Your task to perform on an android device: see creations saved in the google photos Image 0: 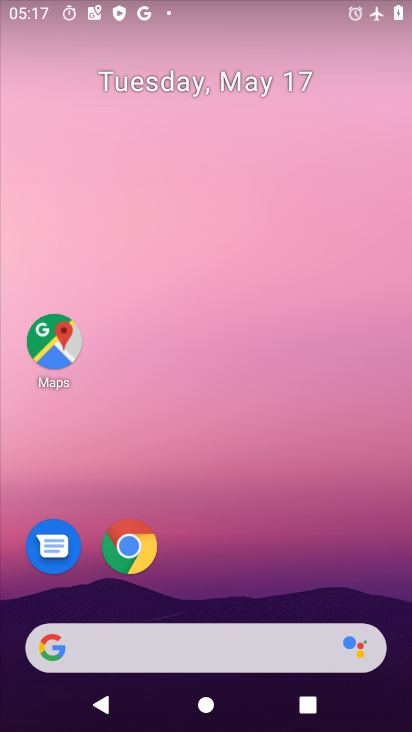
Step 0: drag from (399, 434) to (389, 191)
Your task to perform on an android device: see creations saved in the google photos Image 1: 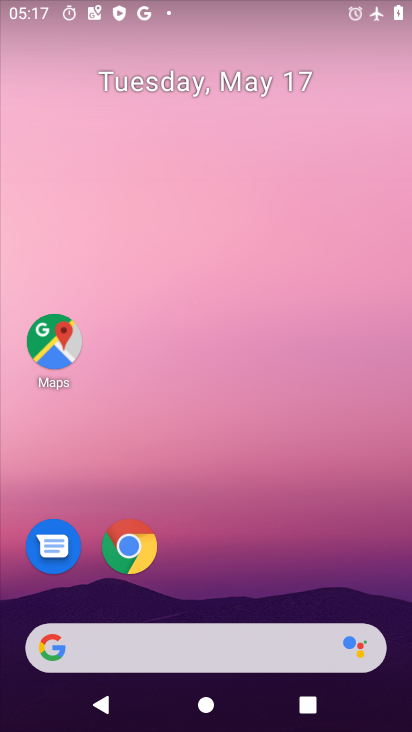
Step 1: drag from (373, 408) to (353, 248)
Your task to perform on an android device: see creations saved in the google photos Image 2: 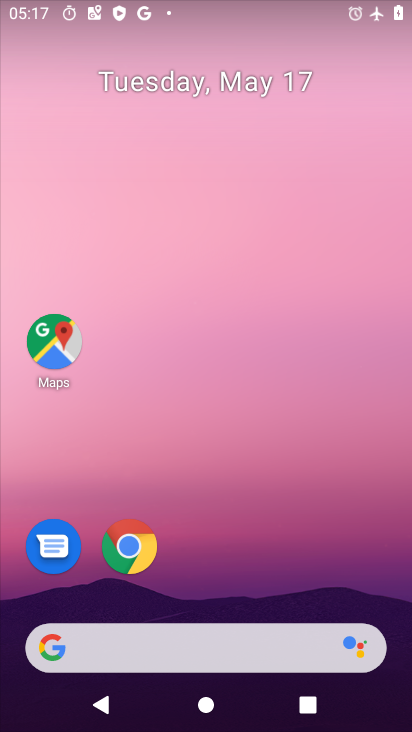
Step 2: drag from (374, 452) to (351, 178)
Your task to perform on an android device: see creations saved in the google photos Image 3: 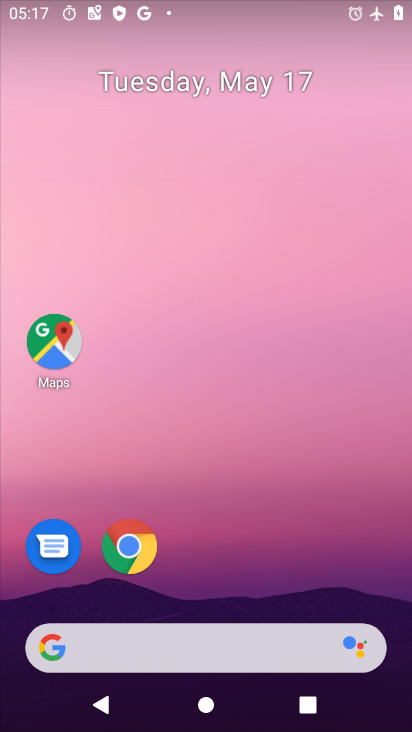
Step 3: drag from (345, 281) to (337, 219)
Your task to perform on an android device: see creations saved in the google photos Image 4: 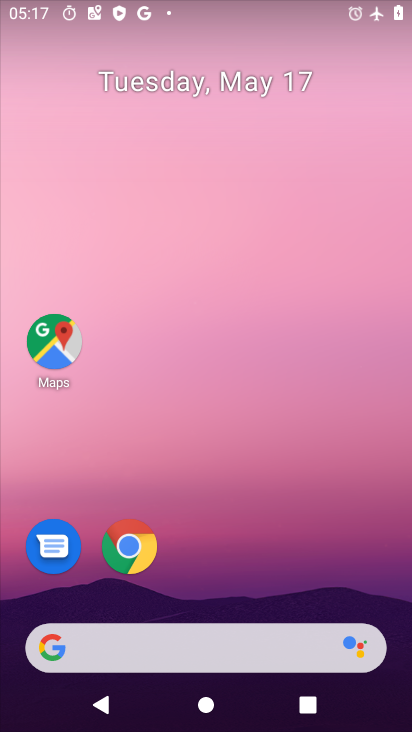
Step 4: drag from (406, 682) to (342, 254)
Your task to perform on an android device: see creations saved in the google photos Image 5: 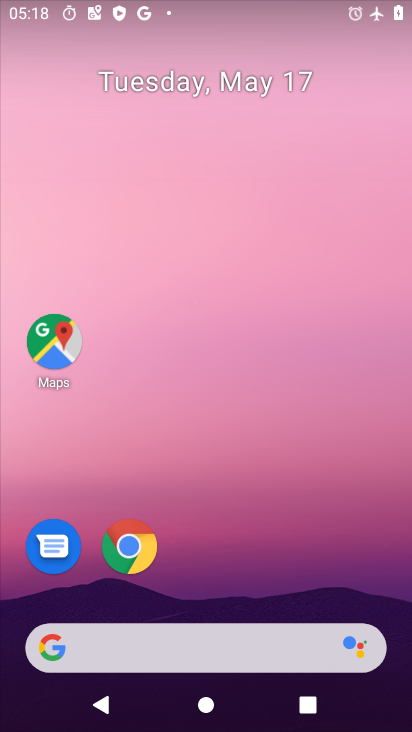
Step 5: click (398, 307)
Your task to perform on an android device: see creations saved in the google photos Image 6: 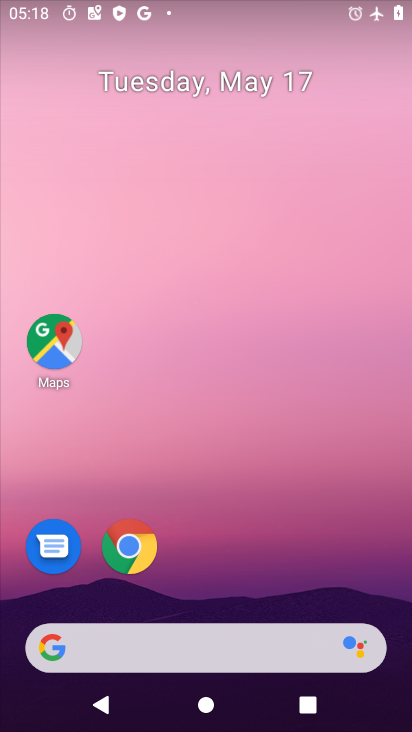
Step 6: drag from (400, 683) to (355, 146)
Your task to perform on an android device: see creations saved in the google photos Image 7: 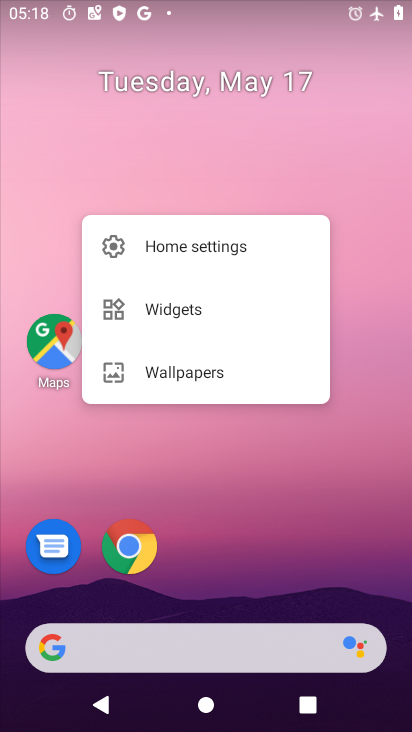
Step 7: click (350, 446)
Your task to perform on an android device: see creations saved in the google photos Image 8: 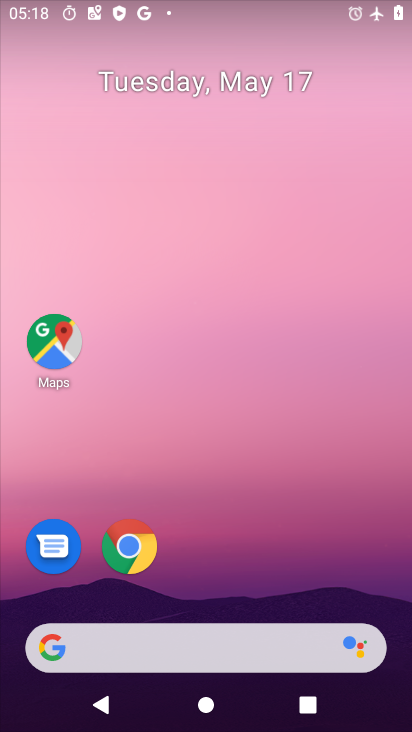
Step 8: drag from (398, 655) to (382, 249)
Your task to perform on an android device: see creations saved in the google photos Image 9: 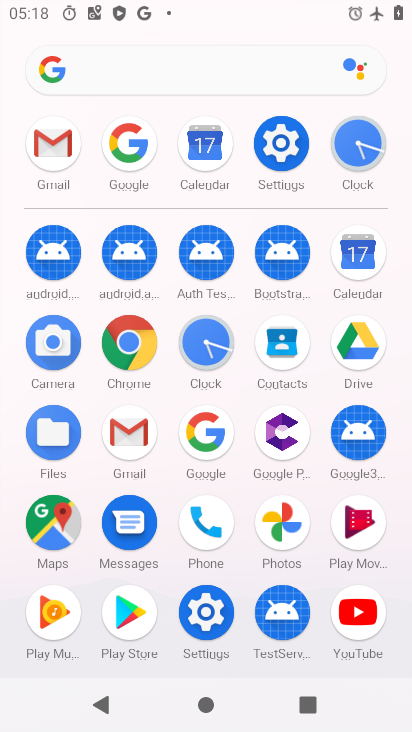
Step 9: click (294, 512)
Your task to perform on an android device: see creations saved in the google photos Image 10: 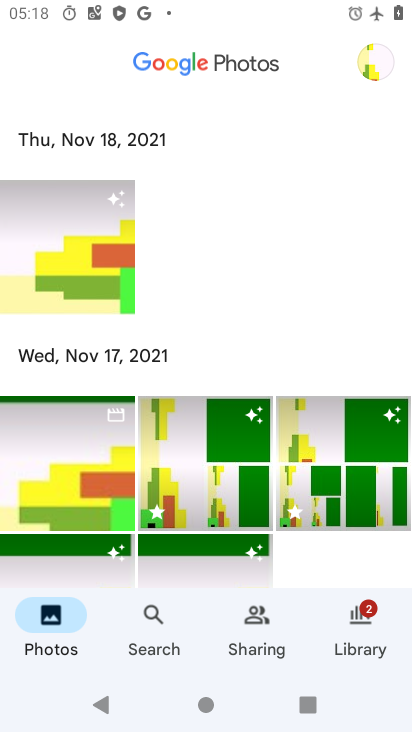
Step 10: click (44, 274)
Your task to perform on an android device: see creations saved in the google photos Image 11: 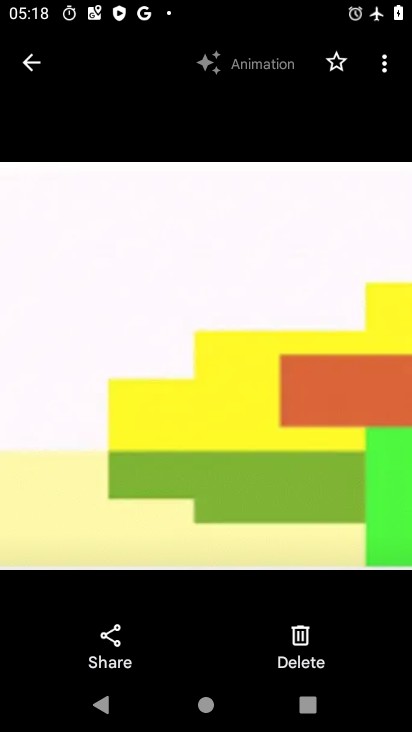
Step 11: click (29, 63)
Your task to perform on an android device: see creations saved in the google photos Image 12: 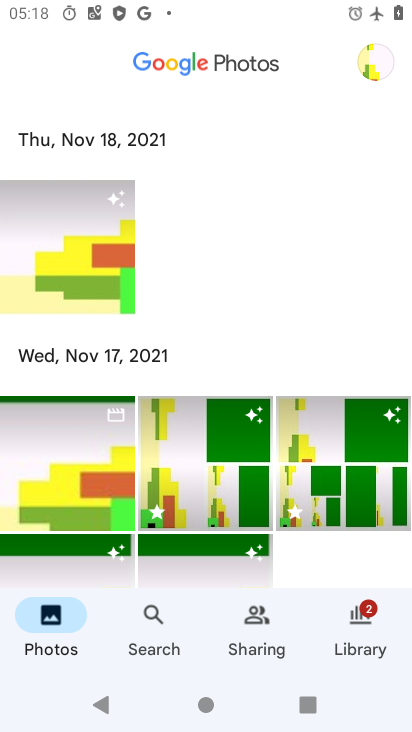
Step 12: task complete